Your task to perform on an android device: Turn on the flashlight Image 0: 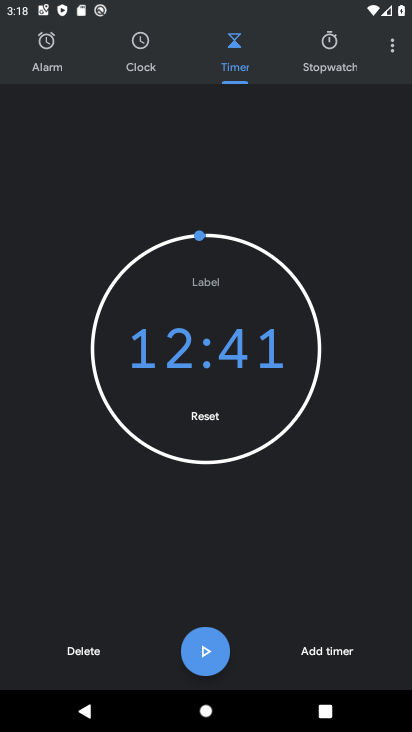
Step 0: press home button
Your task to perform on an android device: Turn on the flashlight Image 1: 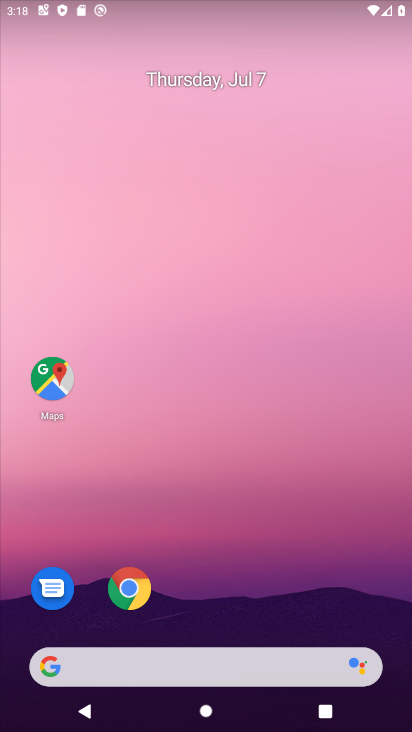
Step 1: drag from (283, 596) to (246, 180)
Your task to perform on an android device: Turn on the flashlight Image 2: 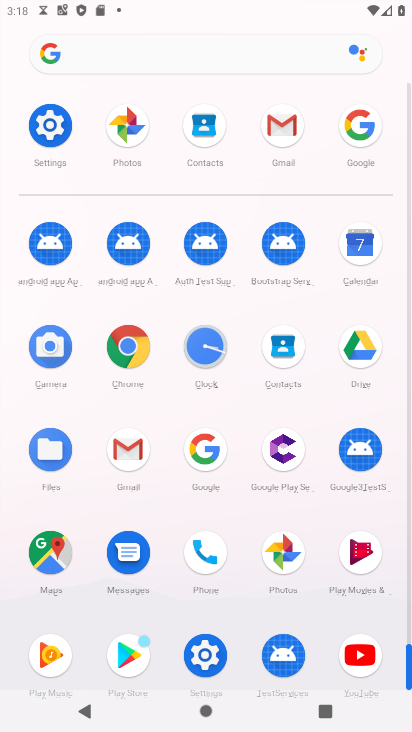
Step 2: click (207, 657)
Your task to perform on an android device: Turn on the flashlight Image 3: 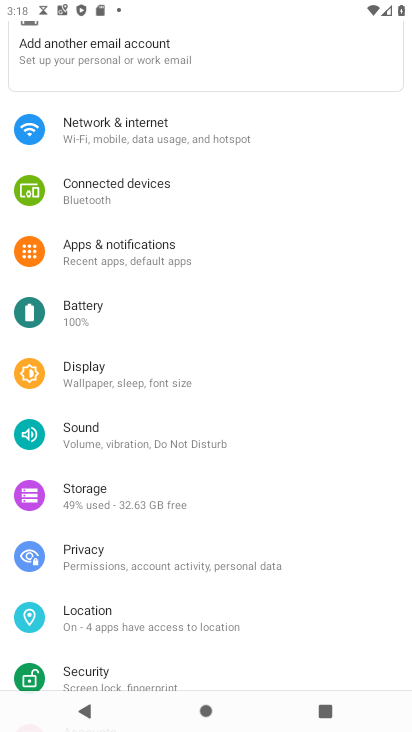
Step 3: click (126, 387)
Your task to perform on an android device: Turn on the flashlight Image 4: 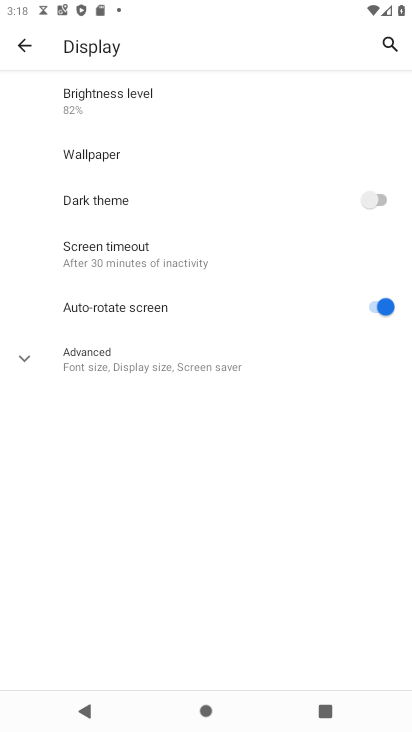
Step 4: click (142, 372)
Your task to perform on an android device: Turn on the flashlight Image 5: 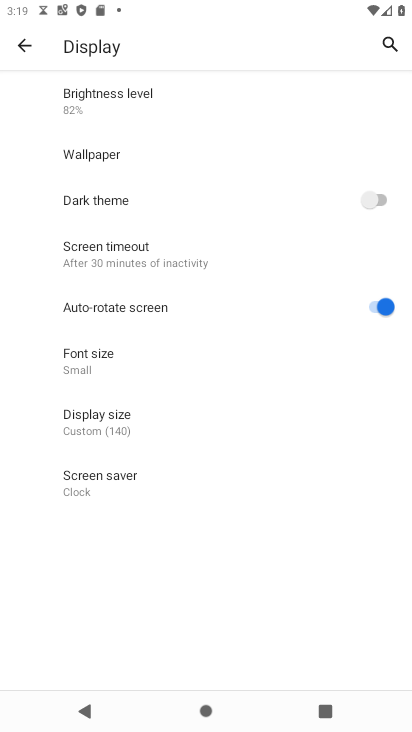
Step 5: task complete